Your task to perform on an android device: open app "Nova Launcher" Image 0: 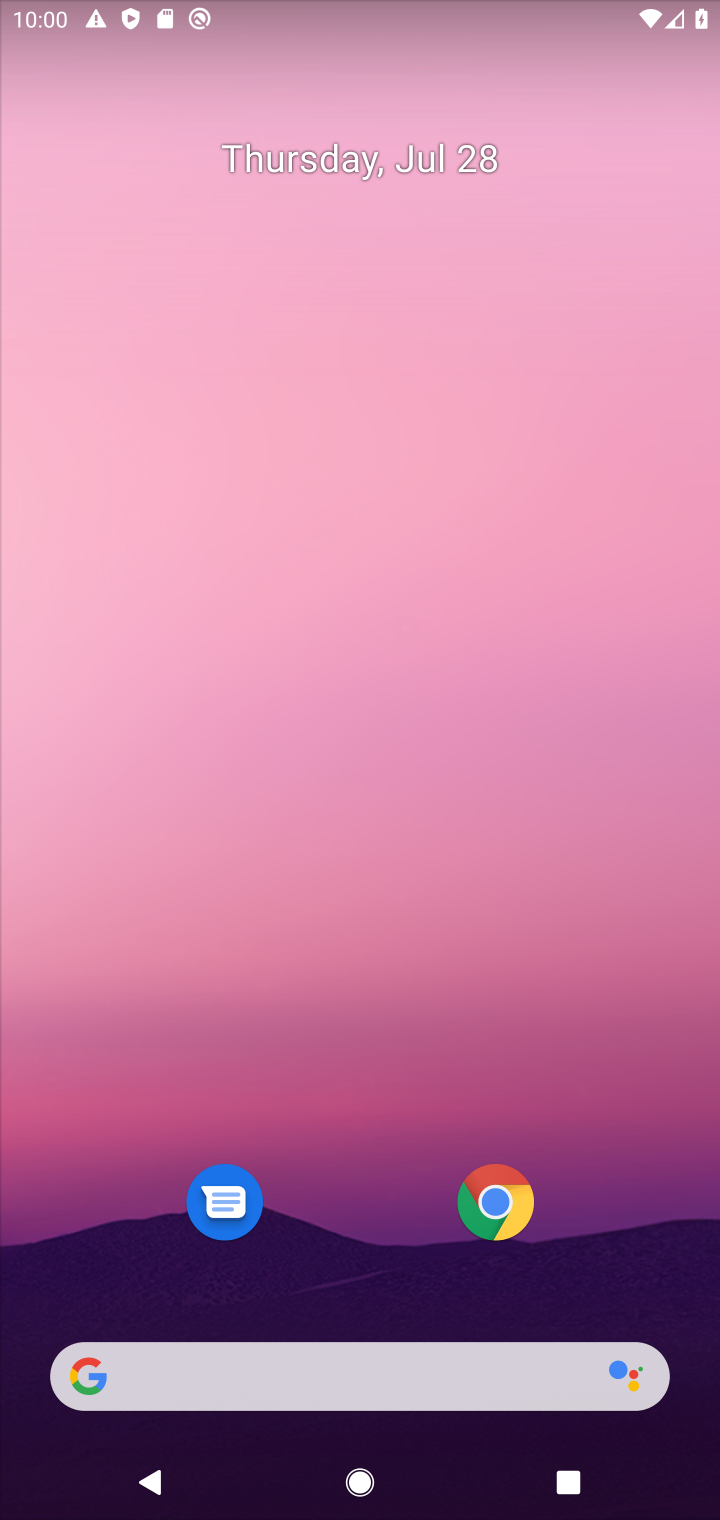
Step 0: click (478, 1358)
Your task to perform on an android device: open app "Nova Launcher" Image 1: 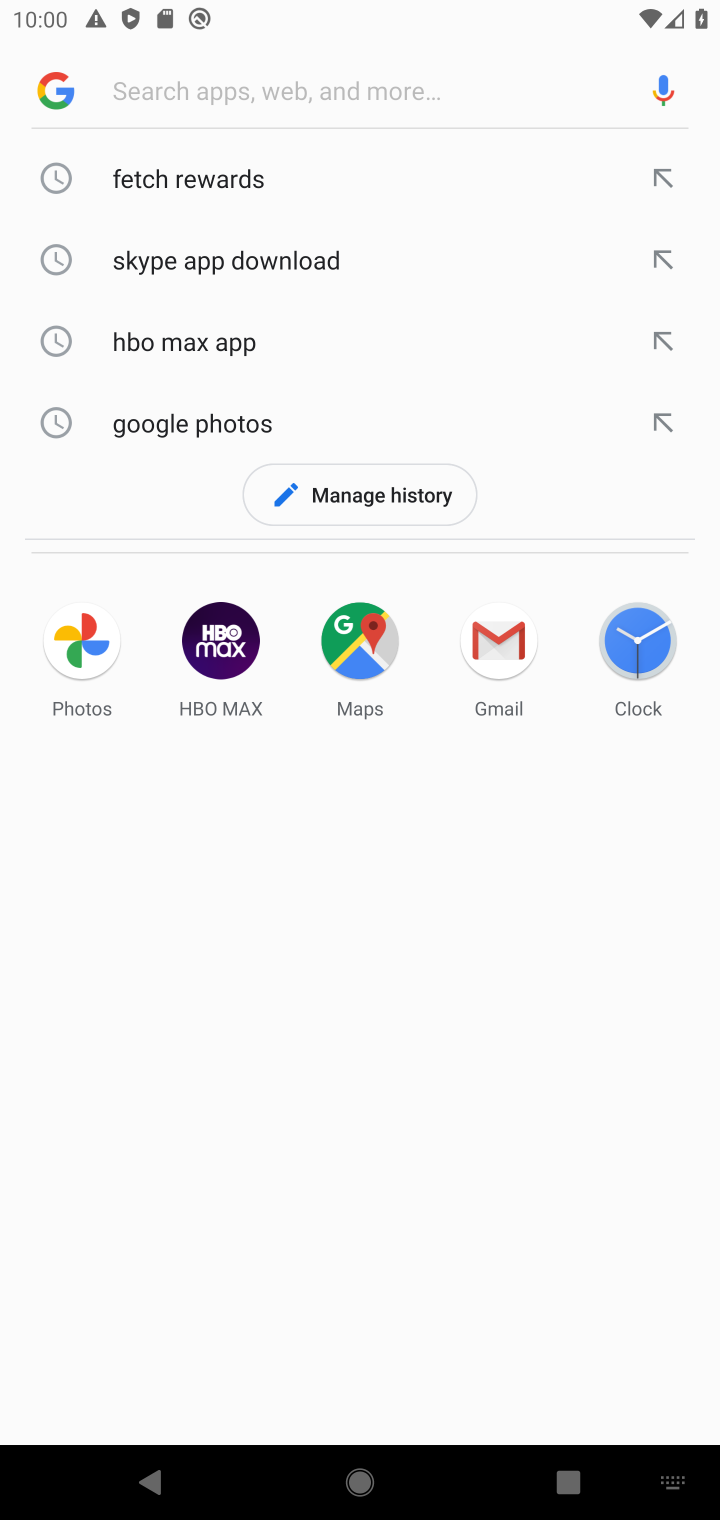
Step 1: type "nova "
Your task to perform on an android device: open app "Nova Launcher" Image 2: 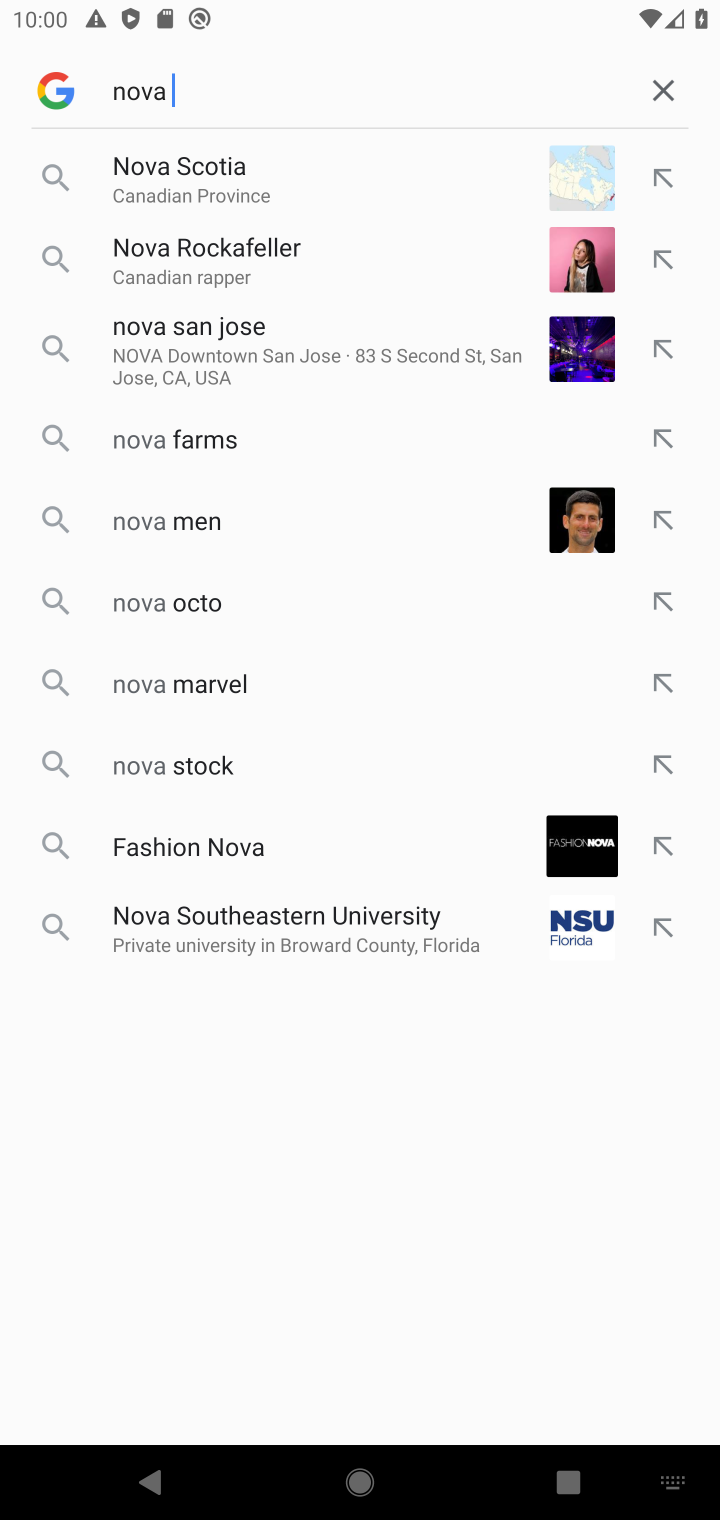
Step 2: type "launcher"
Your task to perform on an android device: open app "Nova Launcher" Image 3: 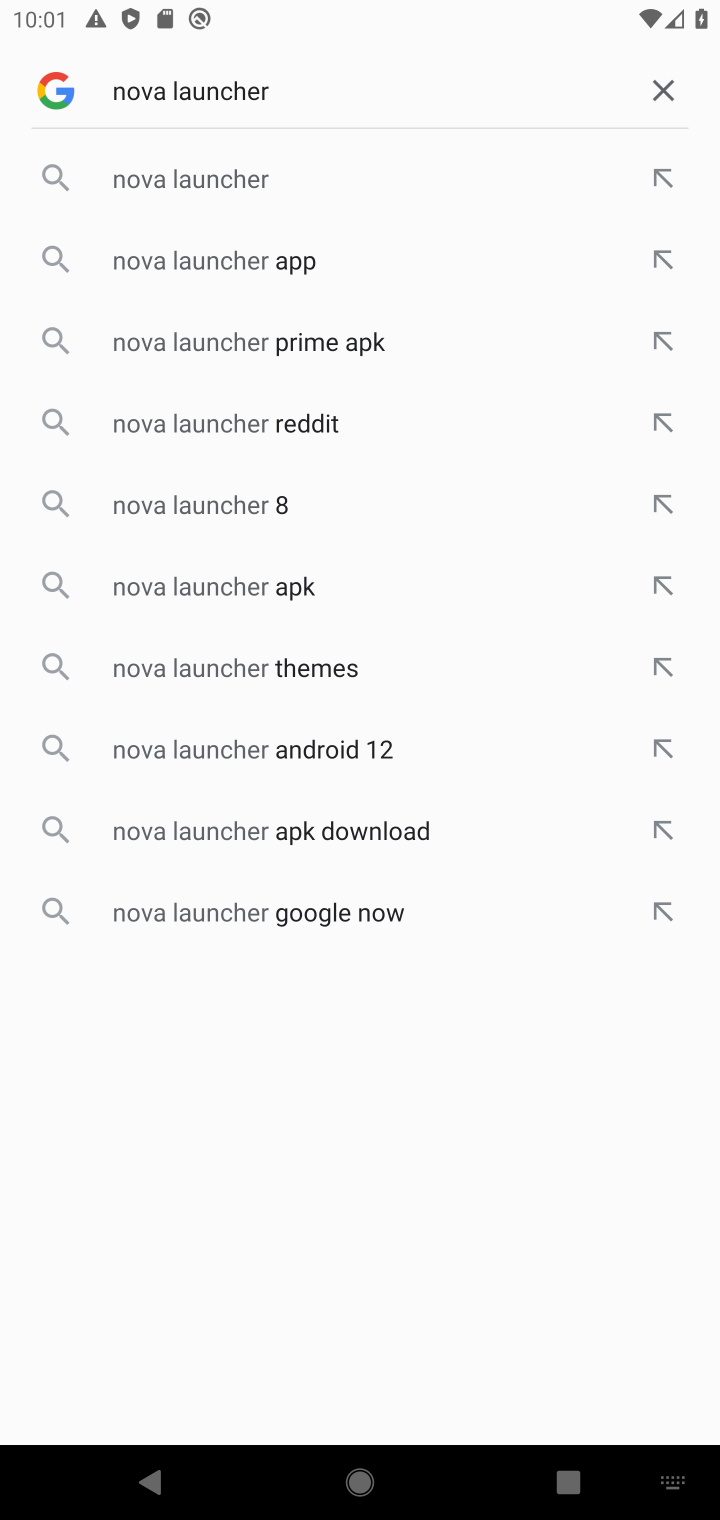
Step 3: click (477, 244)
Your task to perform on an android device: open app "Nova Launcher" Image 4: 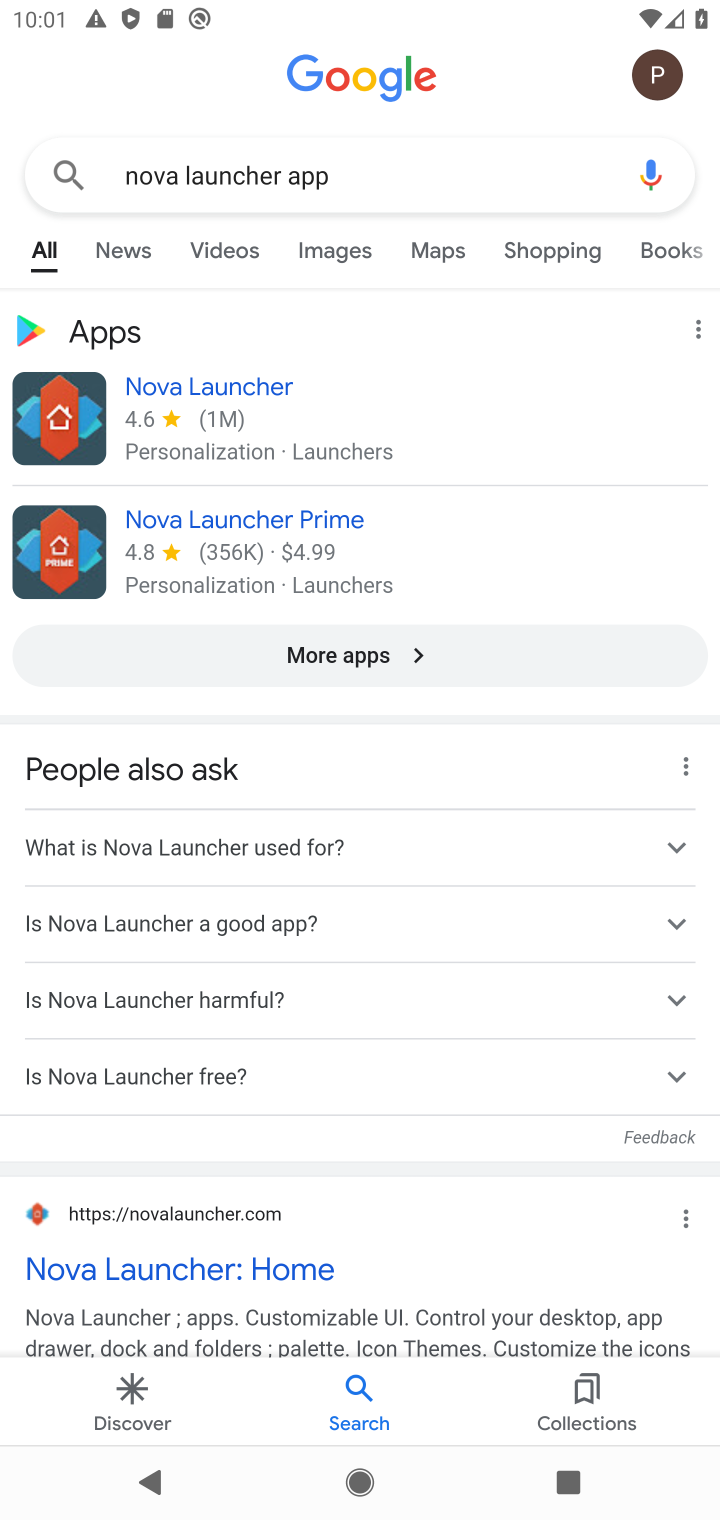
Step 4: click (286, 410)
Your task to perform on an android device: open app "Nova Launcher" Image 5: 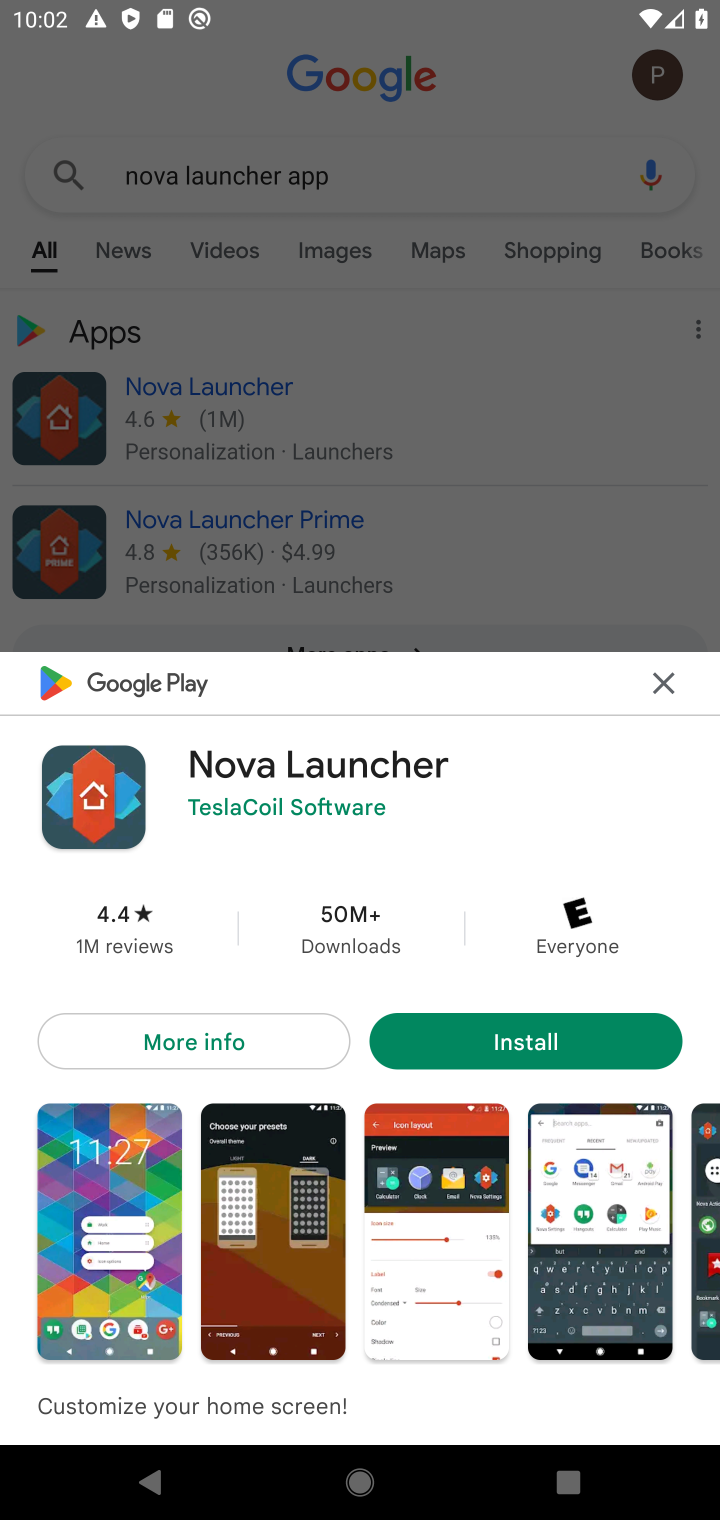
Step 5: click (410, 1026)
Your task to perform on an android device: open app "Nova Launcher" Image 6: 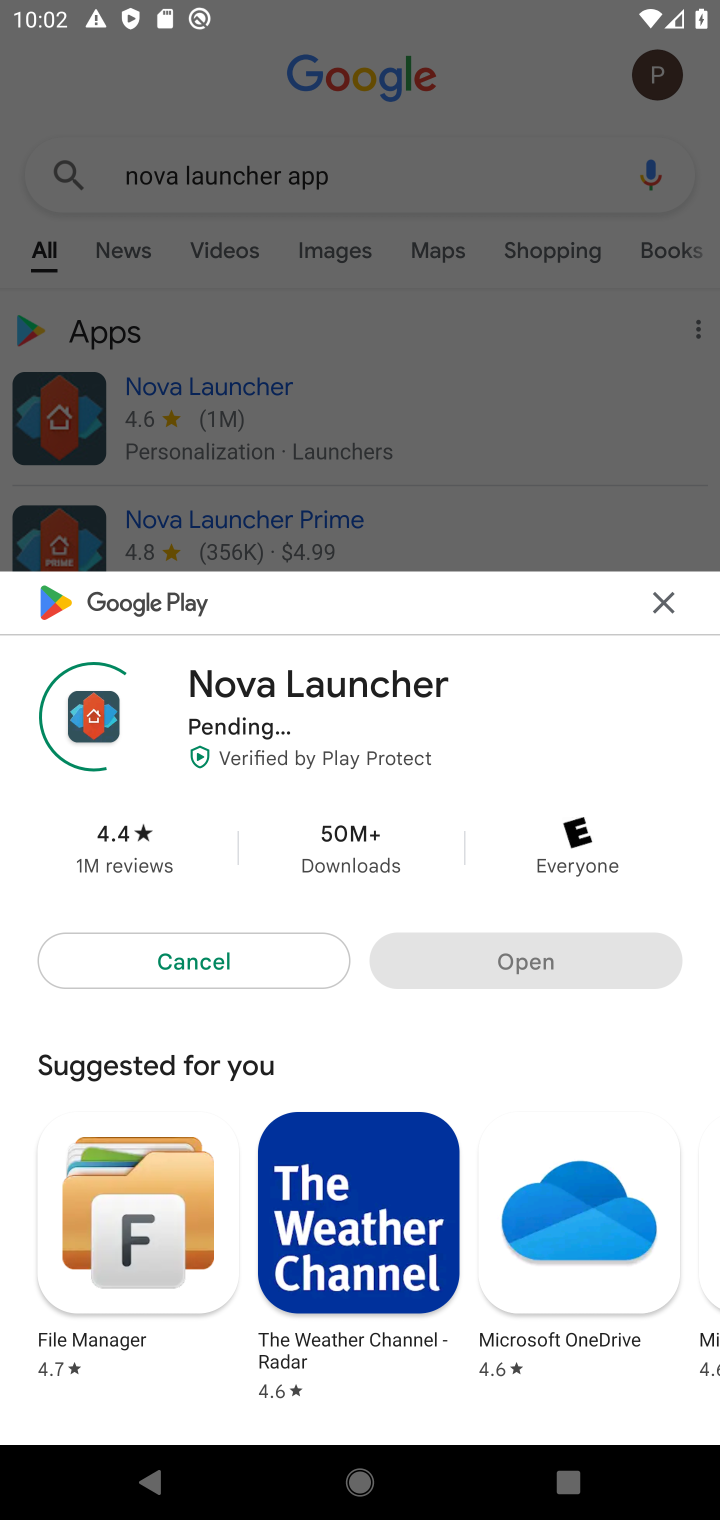
Step 6: task complete